Your task to perform on an android device: Do I have any events today? Image 0: 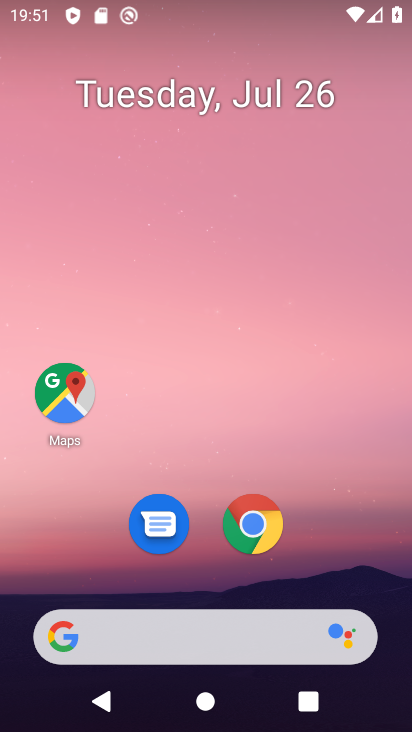
Step 0: drag from (150, 633) to (325, 188)
Your task to perform on an android device: Do I have any events today? Image 1: 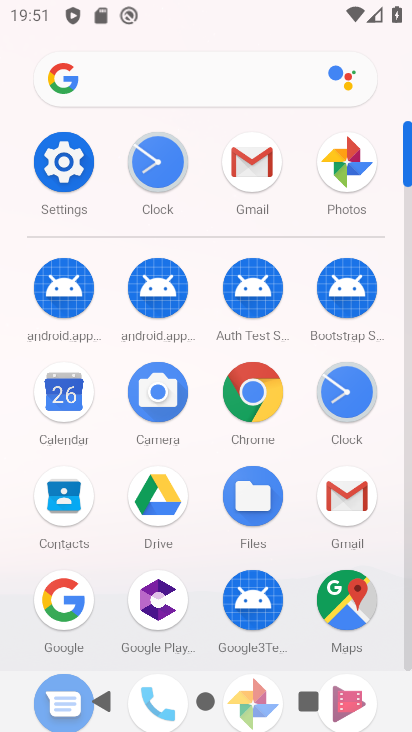
Step 1: click (60, 409)
Your task to perform on an android device: Do I have any events today? Image 2: 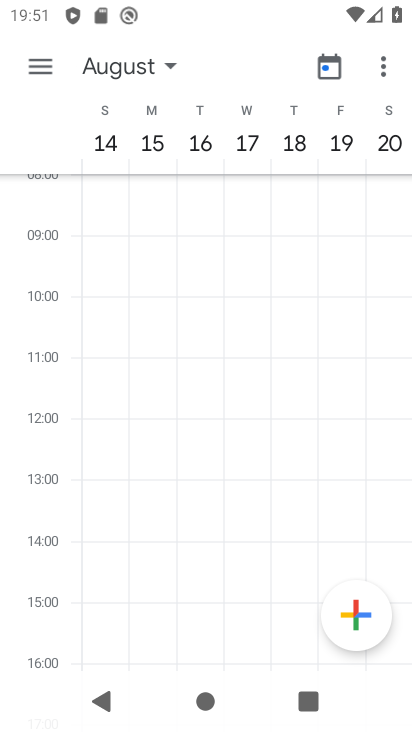
Step 2: click (107, 69)
Your task to perform on an android device: Do I have any events today? Image 3: 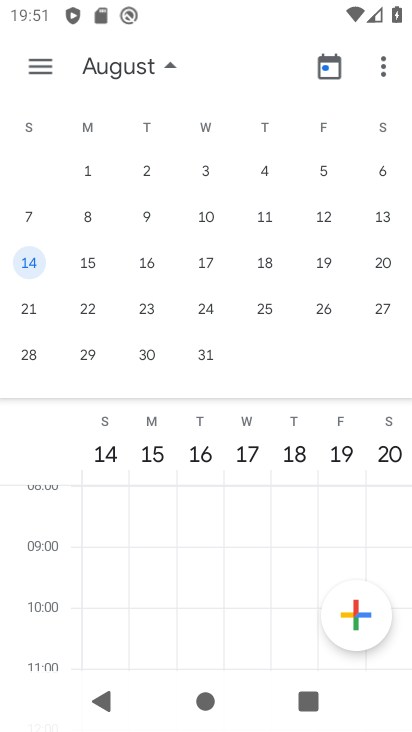
Step 3: drag from (65, 318) to (411, 324)
Your task to perform on an android device: Do I have any events today? Image 4: 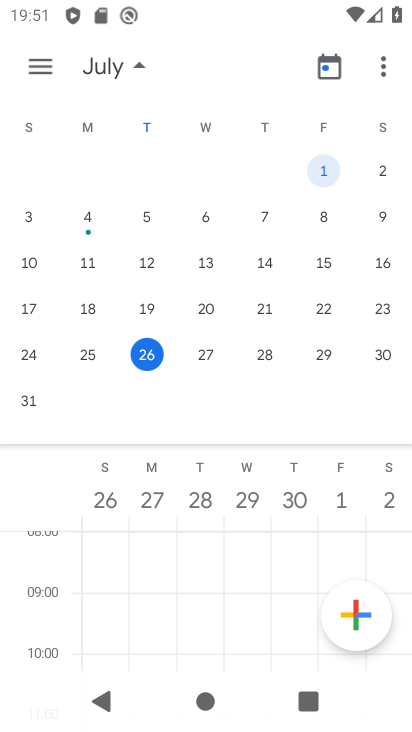
Step 4: click (145, 355)
Your task to perform on an android device: Do I have any events today? Image 5: 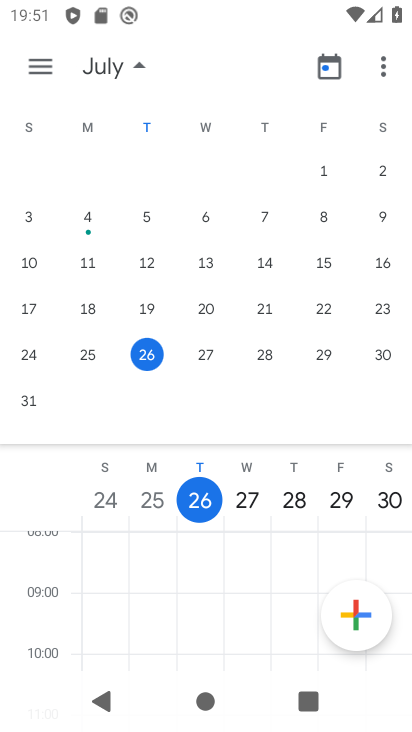
Step 5: click (45, 63)
Your task to perform on an android device: Do I have any events today? Image 6: 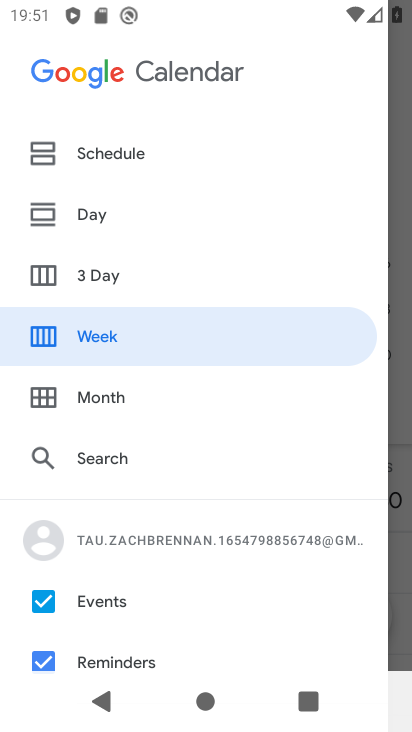
Step 6: click (95, 214)
Your task to perform on an android device: Do I have any events today? Image 7: 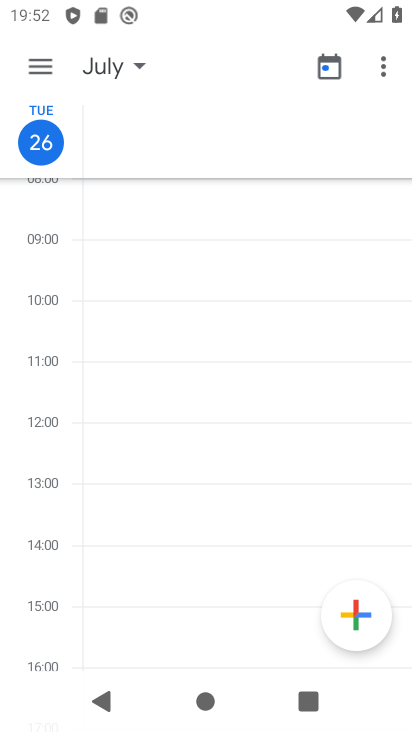
Step 7: click (42, 66)
Your task to perform on an android device: Do I have any events today? Image 8: 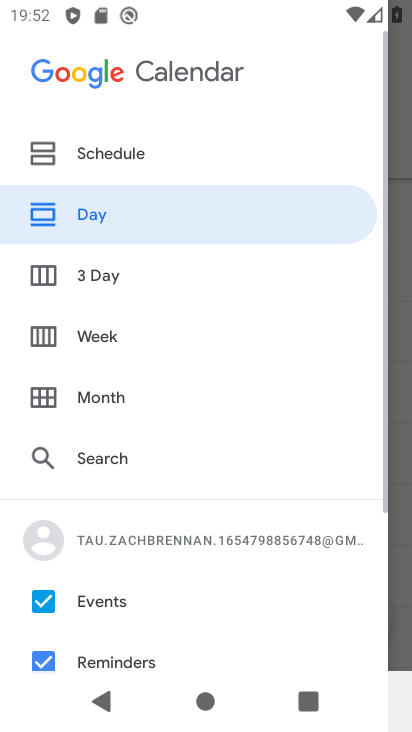
Step 8: click (88, 149)
Your task to perform on an android device: Do I have any events today? Image 9: 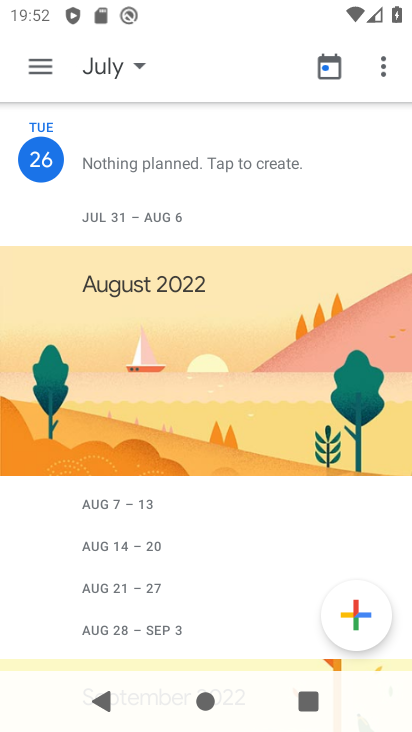
Step 9: task complete